Your task to perform on an android device: Open calendar and show me the third week of next month Image 0: 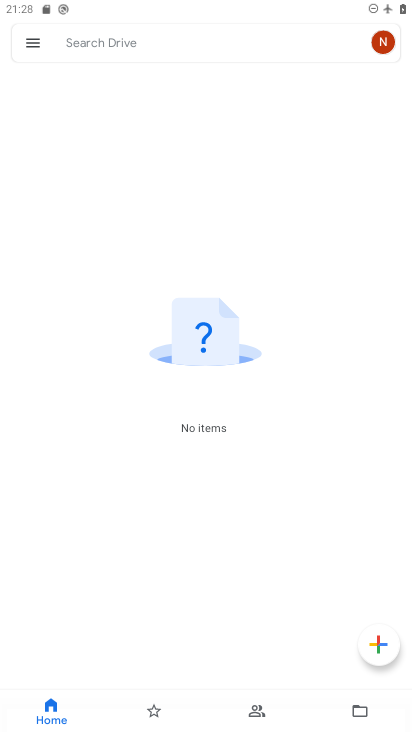
Step 0: press home button
Your task to perform on an android device: Open calendar and show me the third week of next month Image 1: 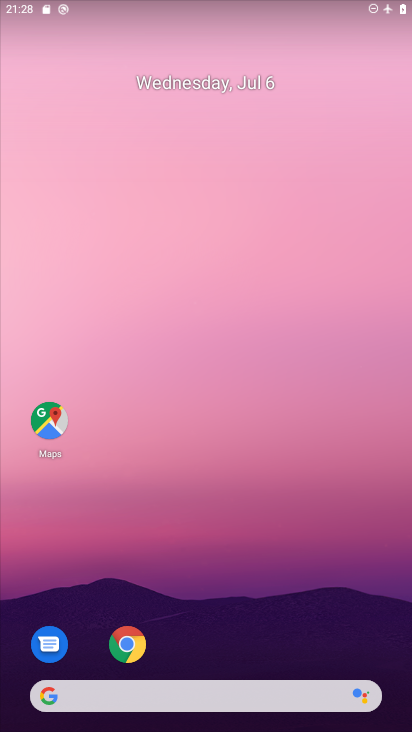
Step 1: drag from (188, 651) to (193, 132)
Your task to perform on an android device: Open calendar and show me the third week of next month Image 2: 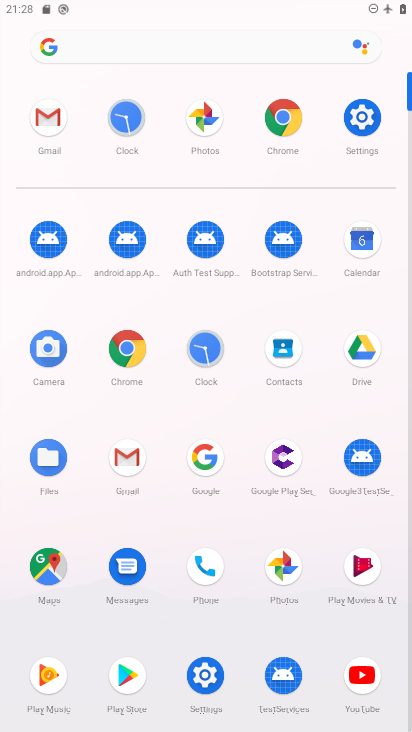
Step 2: click (363, 229)
Your task to perform on an android device: Open calendar and show me the third week of next month Image 3: 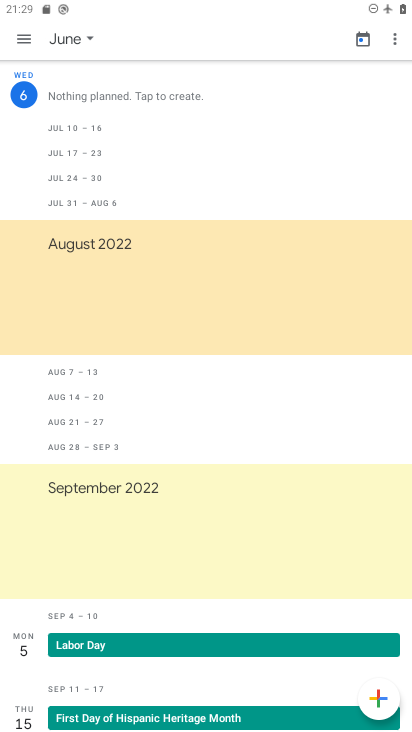
Step 3: click (87, 38)
Your task to perform on an android device: Open calendar and show me the third week of next month Image 4: 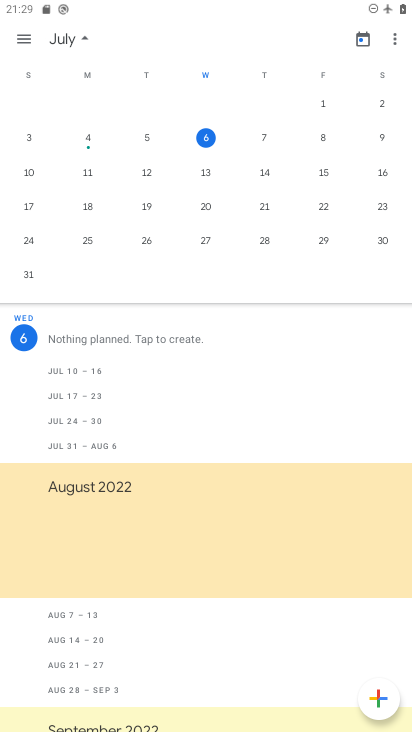
Step 4: drag from (339, 194) to (13, 143)
Your task to perform on an android device: Open calendar and show me the third week of next month Image 5: 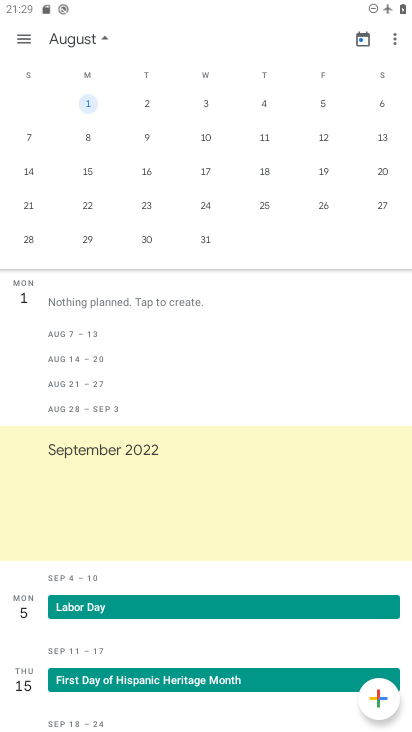
Step 5: click (289, 155)
Your task to perform on an android device: Open calendar and show me the third week of next month Image 6: 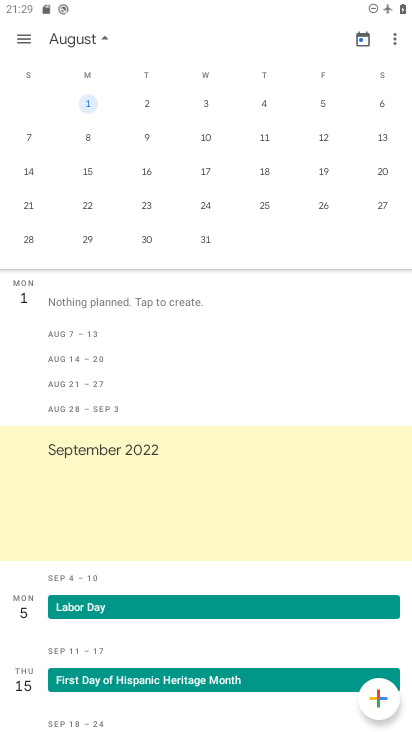
Step 6: click (29, 177)
Your task to perform on an android device: Open calendar and show me the third week of next month Image 7: 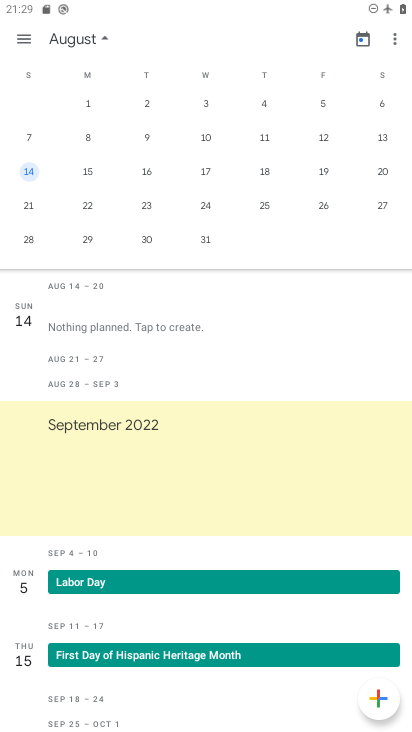
Step 7: click (79, 172)
Your task to perform on an android device: Open calendar and show me the third week of next month Image 8: 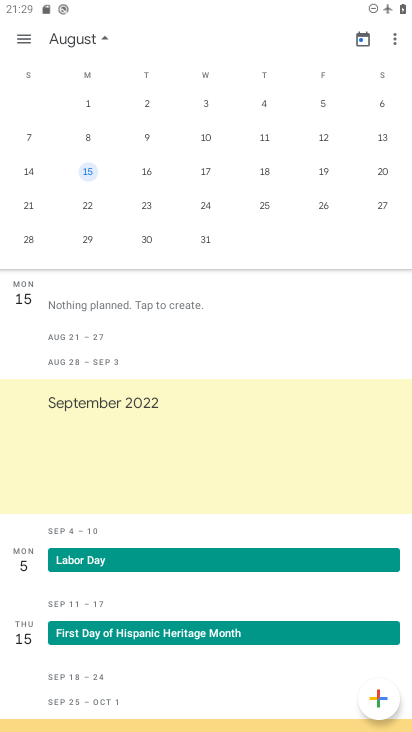
Step 8: click (34, 166)
Your task to perform on an android device: Open calendar and show me the third week of next month Image 9: 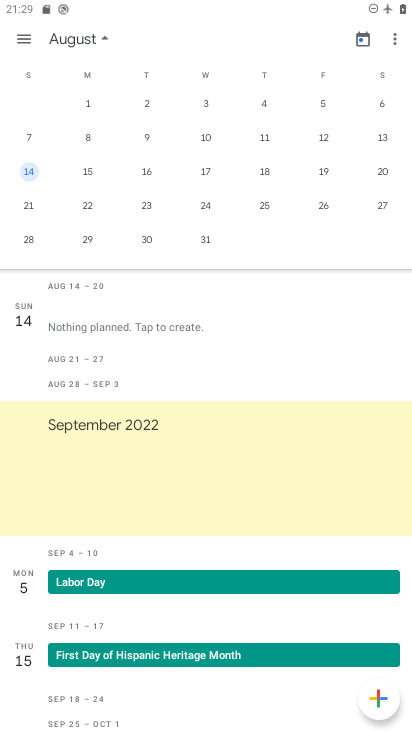
Step 9: drag from (214, 566) to (231, 518)
Your task to perform on an android device: Open calendar and show me the third week of next month Image 10: 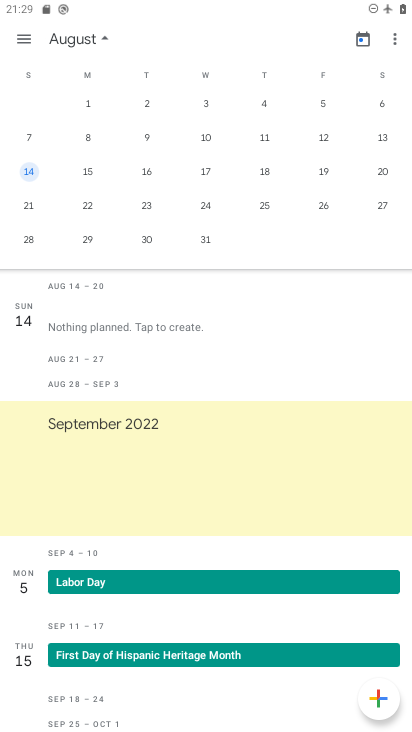
Step 10: click (184, 290)
Your task to perform on an android device: Open calendar and show me the third week of next month Image 11: 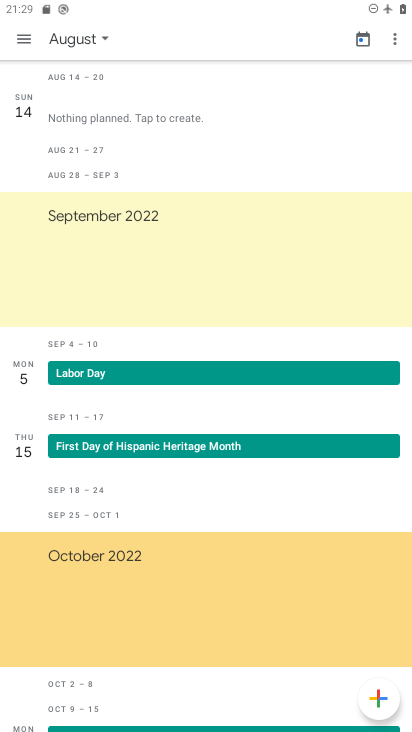
Step 11: task complete